Your task to perform on an android device: turn off sleep mode Image 0: 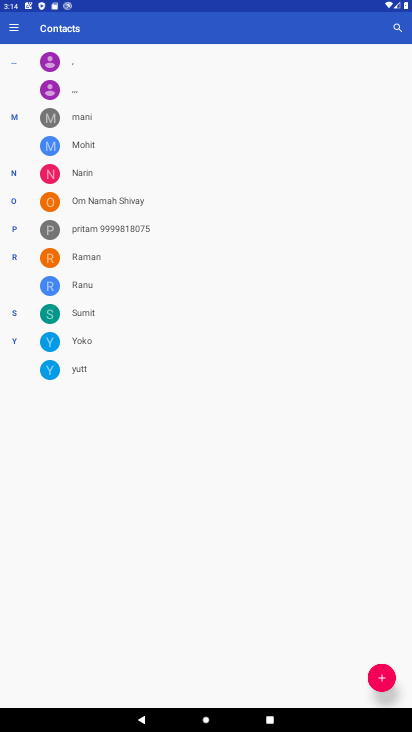
Step 0: press home button
Your task to perform on an android device: turn off sleep mode Image 1: 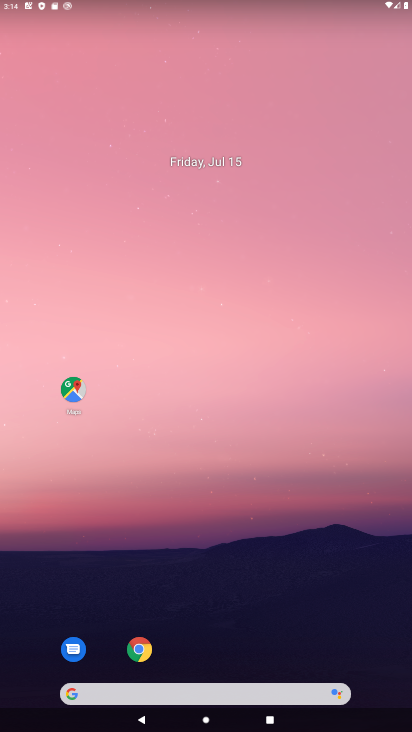
Step 1: drag from (291, 588) to (243, 139)
Your task to perform on an android device: turn off sleep mode Image 2: 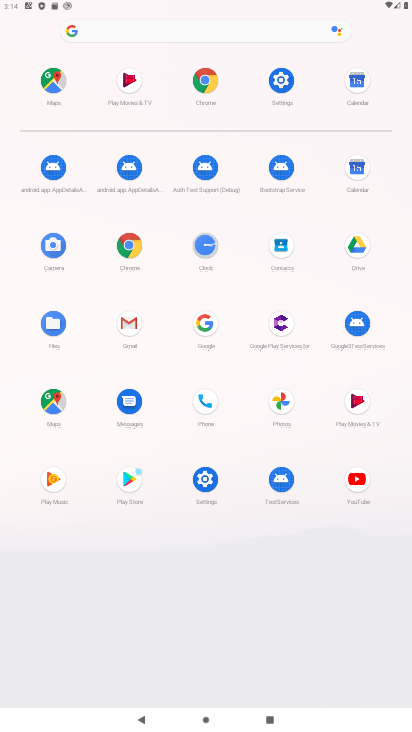
Step 2: click (281, 77)
Your task to perform on an android device: turn off sleep mode Image 3: 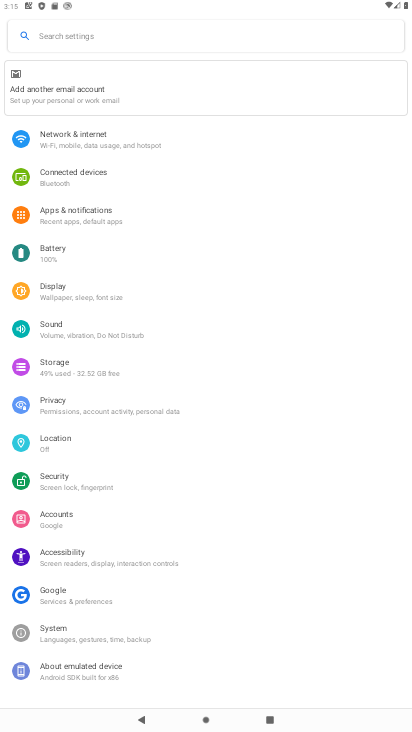
Step 3: click (78, 292)
Your task to perform on an android device: turn off sleep mode Image 4: 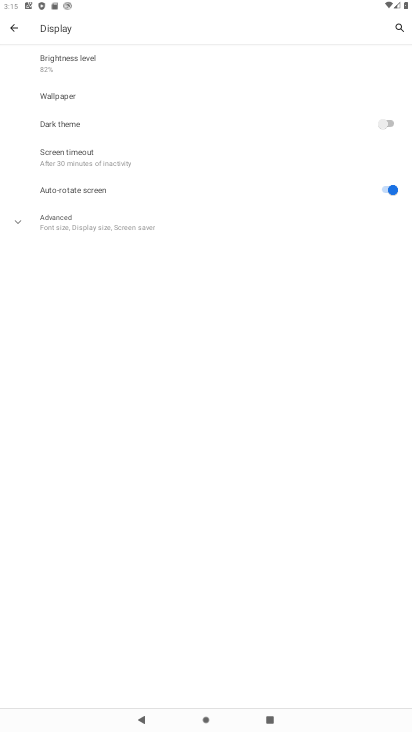
Step 4: click (100, 152)
Your task to perform on an android device: turn off sleep mode Image 5: 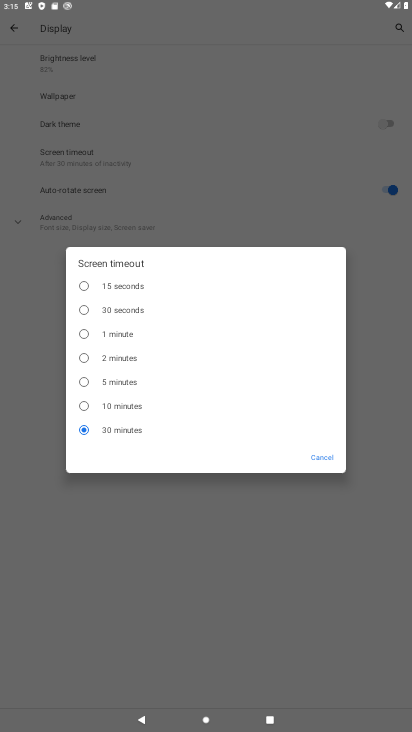
Step 5: task complete